Your task to perform on an android device: toggle improve location accuracy Image 0: 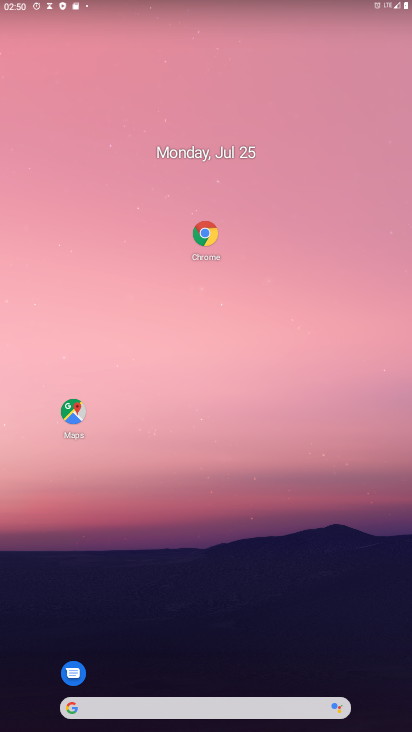
Step 0: drag from (217, 579) to (234, 2)
Your task to perform on an android device: toggle improve location accuracy Image 1: 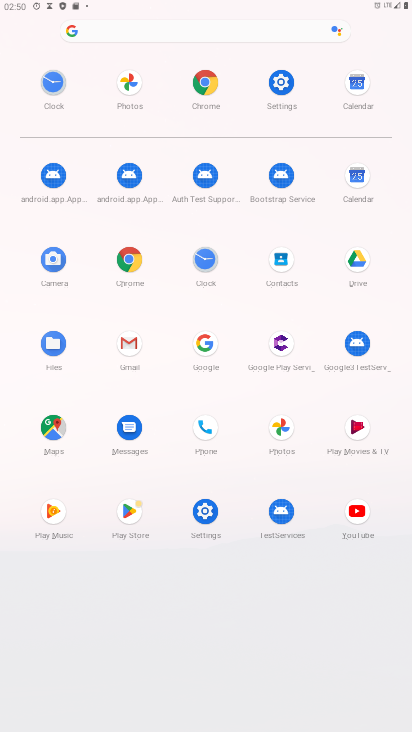
Step 1: click (278, 80)
Your task to perform on an android device: toggle improve location accuracy Image 2: 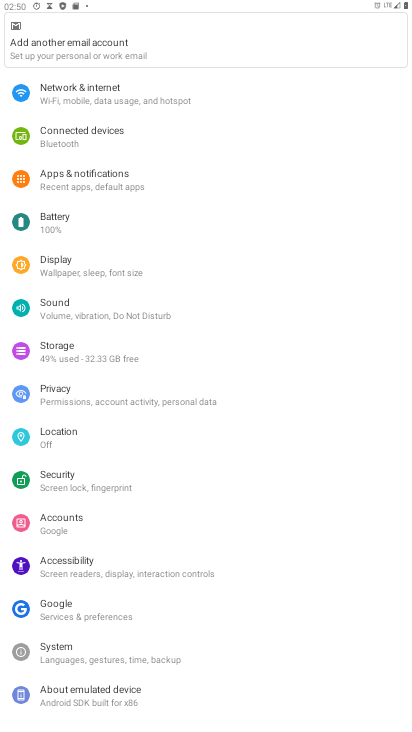
Step 2: click (75, 450)
Your task to perform on an android device: toggle improve location accuracy Image 3: 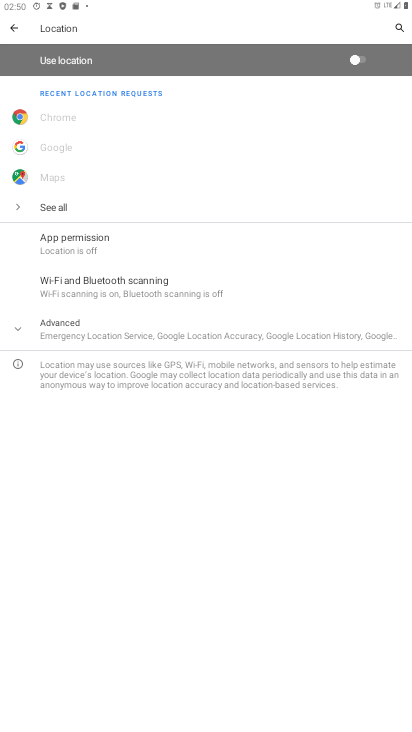
Step 3: click (113, 330)
Your task to perform on an android device: toggle improve location accuracy Image 4: 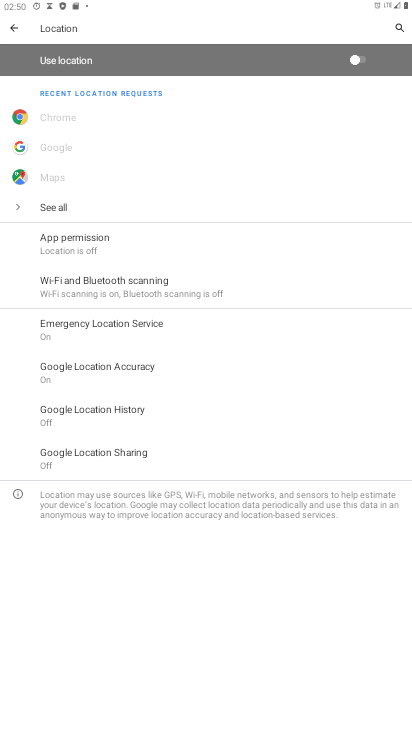
Step 4: click (141, 368)
Your task to perform on an android device: toggle improve location accuracy Image 5: 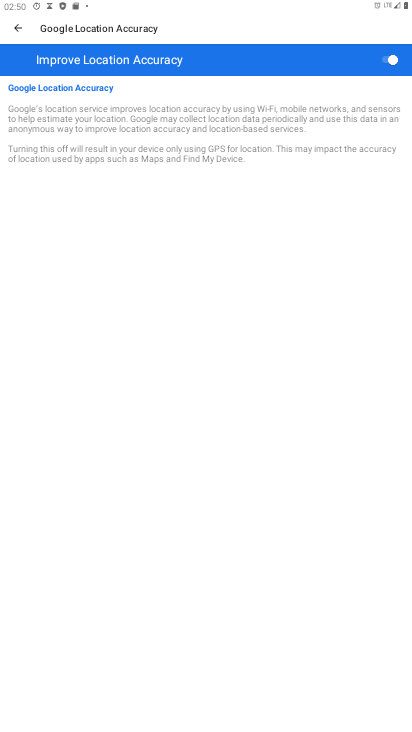
Step 5: click (387, 58)
Your task to perform on an android device: toggle improve location accuracy Image 6: 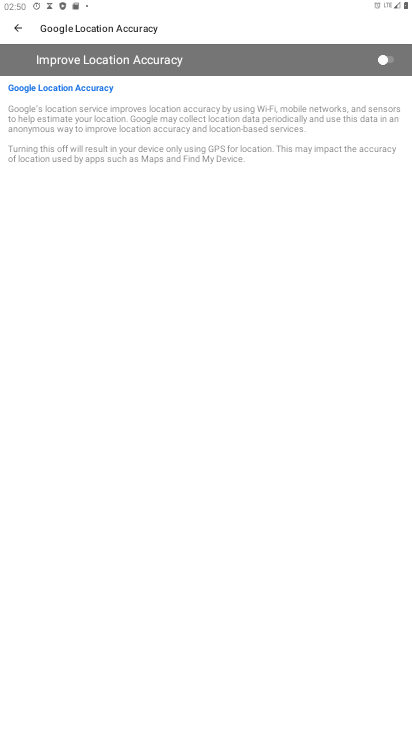
Step 6: task complete